Your task to perform on an android device: Open battery settings Image 0: 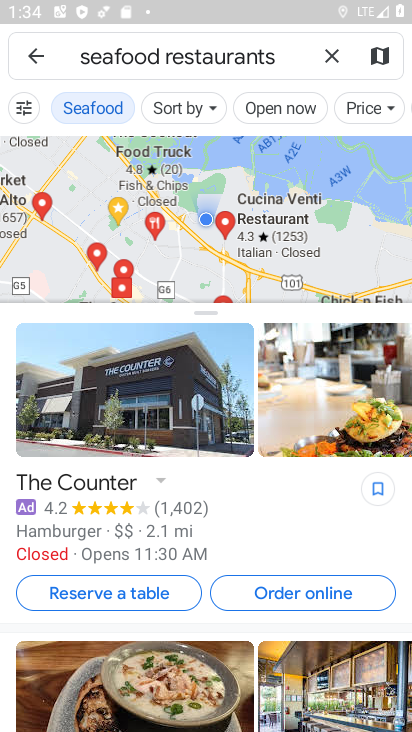
Step 0: press home button
Your task to perform on an android device: Open battery settings Image 1: 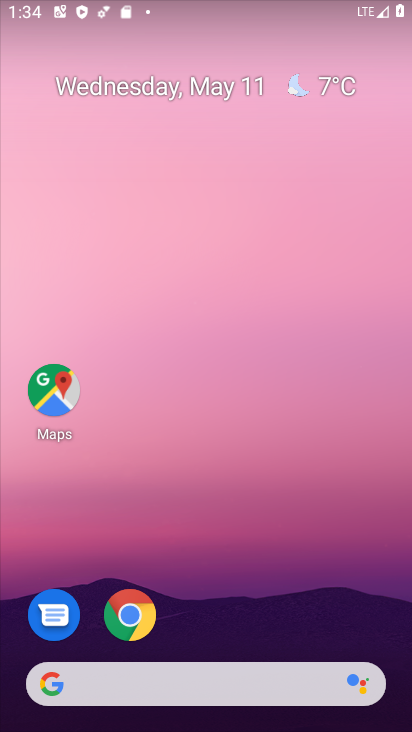
Step 1: drag from (275, 564) to (319, 48)
Your task to perform on an android device: Open battery settings Image 2: 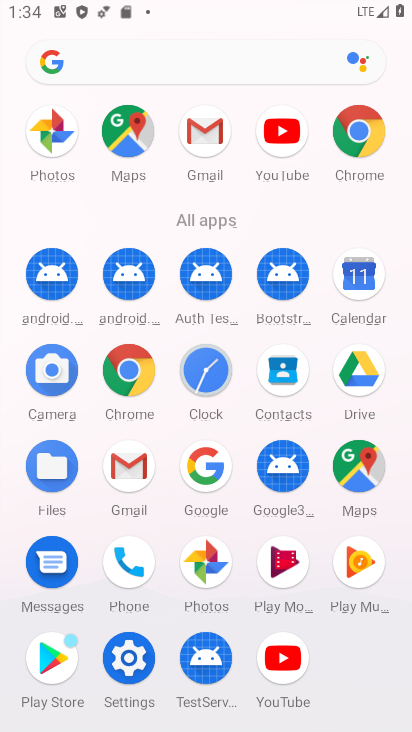
Step 2: click (128, 651)
Your task to perform on an android device: Open battery settings Image 3: 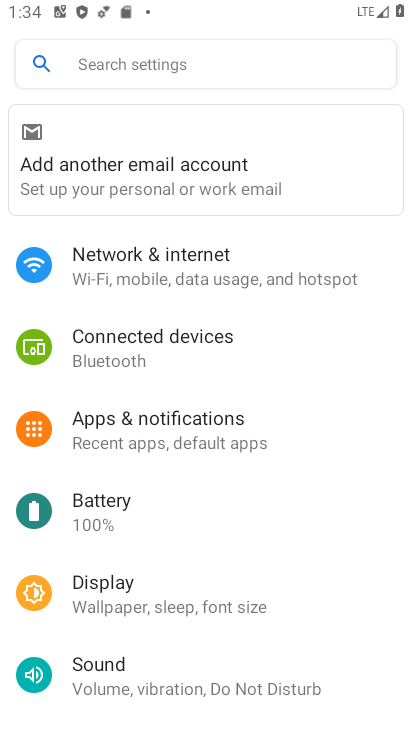
Step 3: drag from (175, 566) to (264, 254)
Your task to perform on an android device: Open battery settings Image 4: 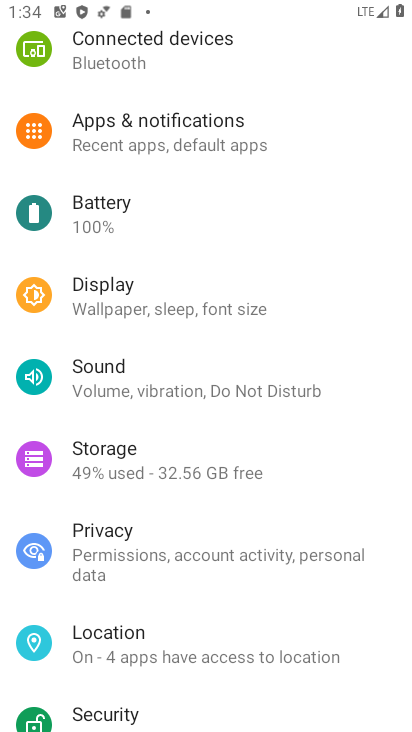
Step 4: click (111, 213)
Your task to perform on an android device: Open battery settings Image 5: 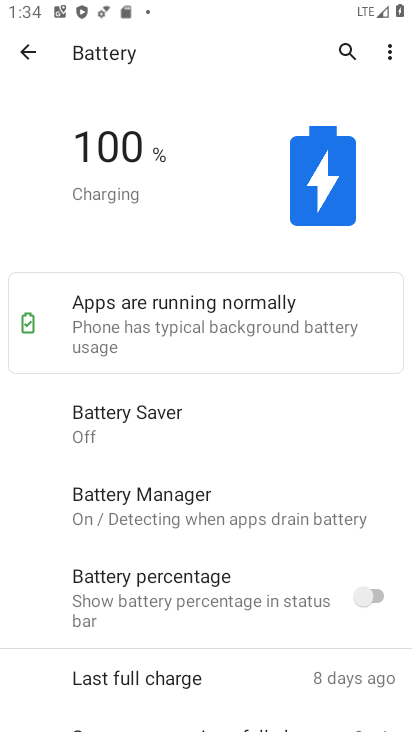
Step 5: task complete